Your task to perform on an android device: change keyboard looks Image 0: 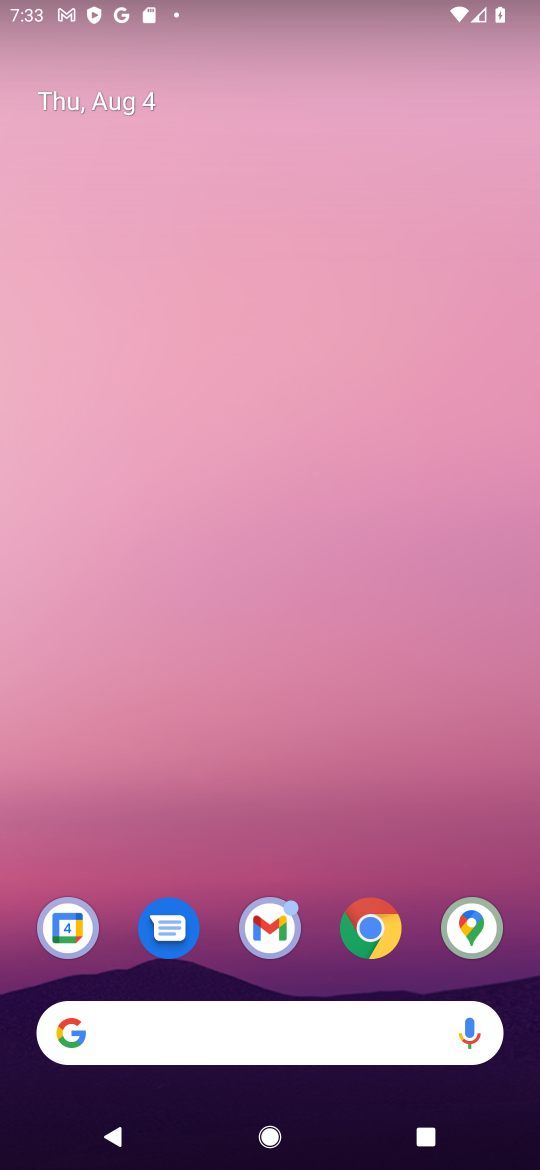
Step 0: drag from (218, 992) to (314, 4)
Your task to perform on an android device: change keyboard looks Image 1: 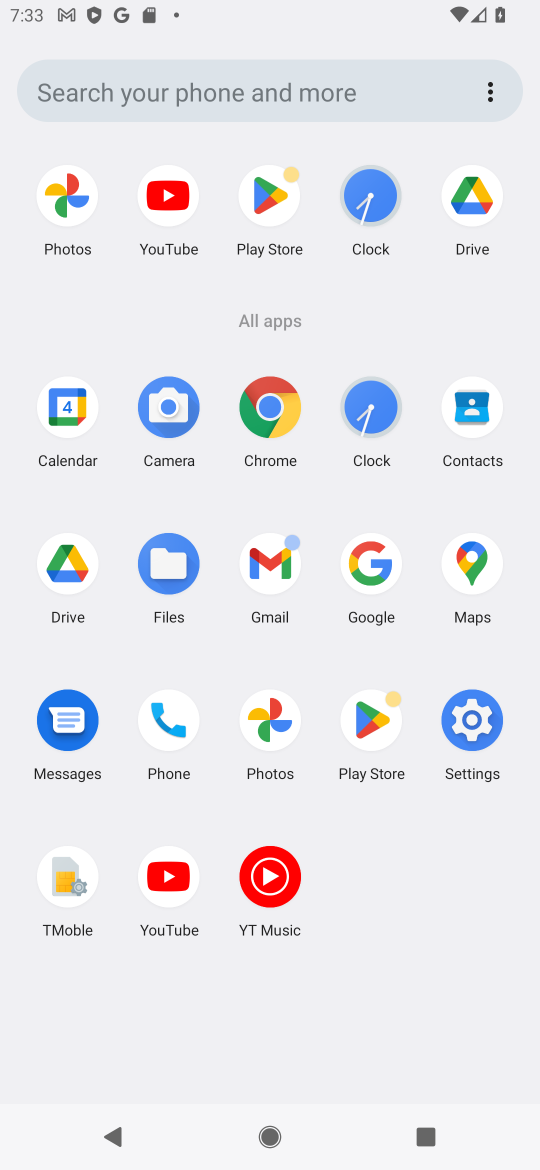
Step 1: click (483, 748)
Your task to perform on an android device: change keyboard looks Image 2: 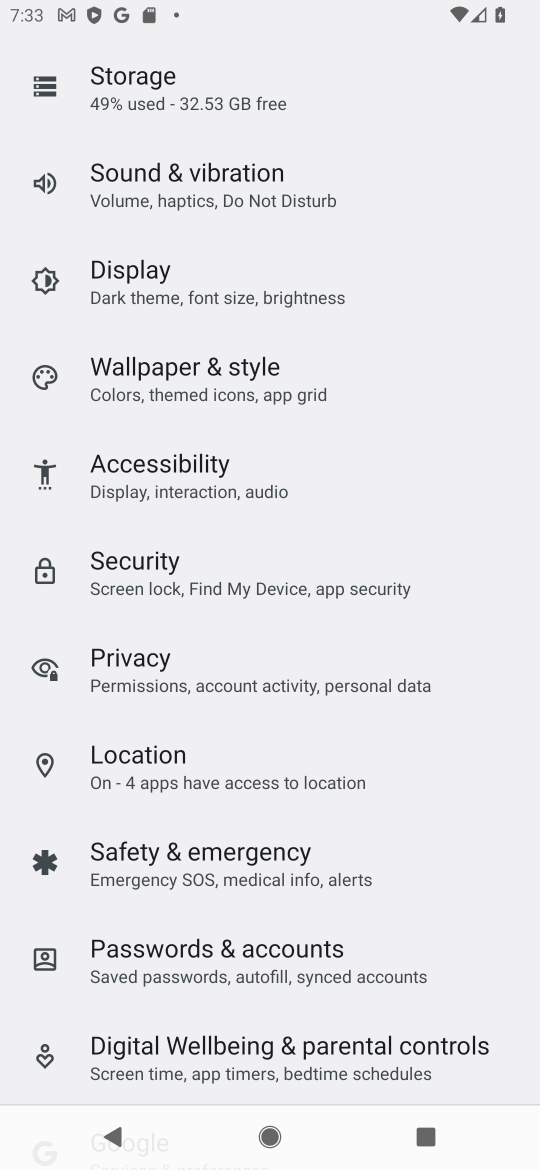
Step 2: drag from (227, 352) to (273, 402)
Your task to perform on an android device: change keyboard looks Image 3: 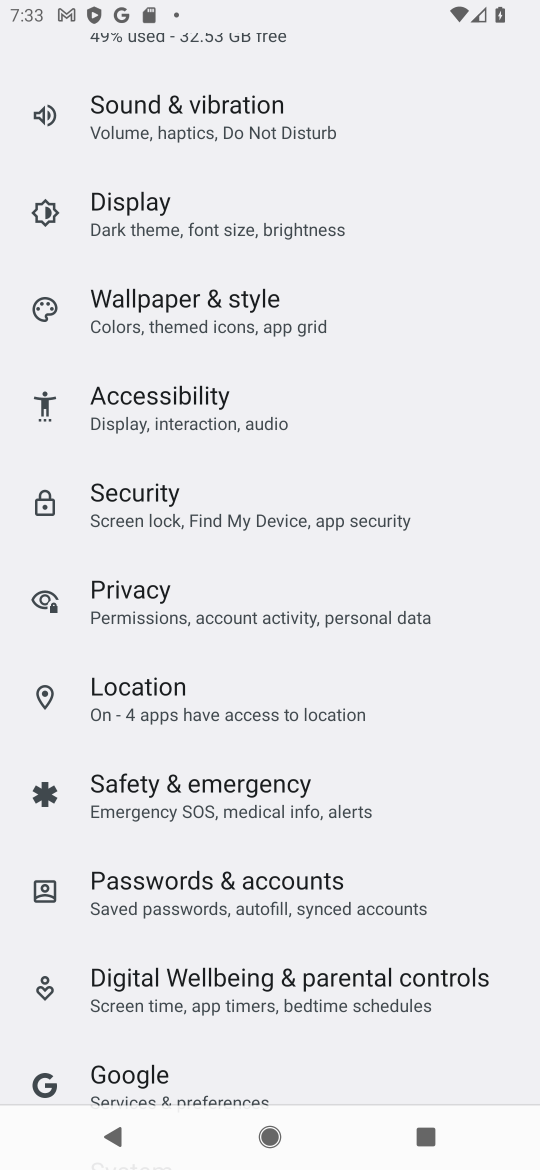
Step 3: drag from (214, 968) to (263, 257)
Your task to perform on an android device: change keyboard looks Image 4: 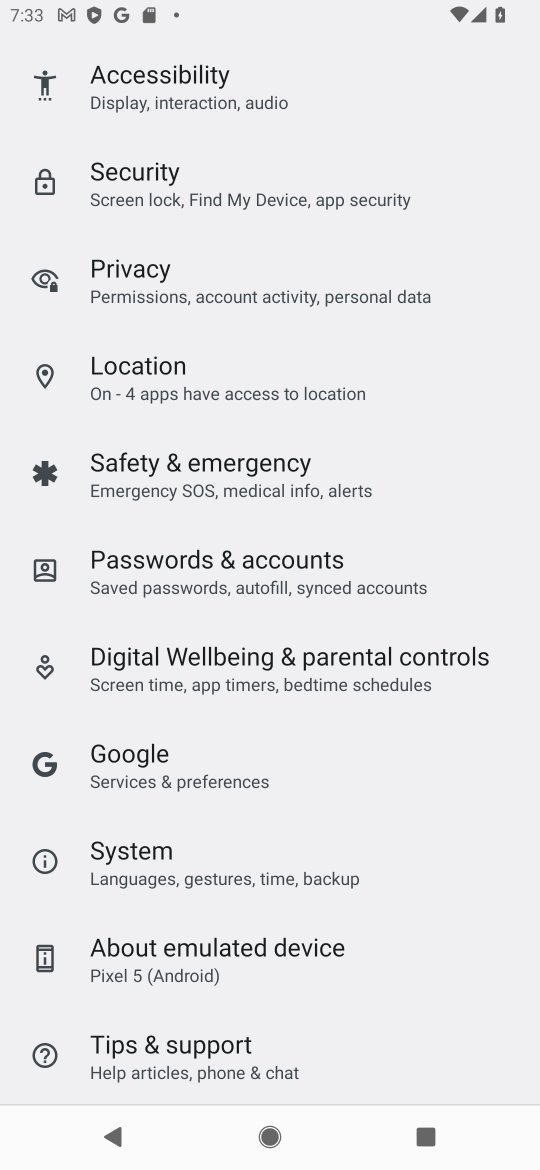
Step 4: click (176, 868)
Your task to perform on an android device: change keyboard looks Image 5: 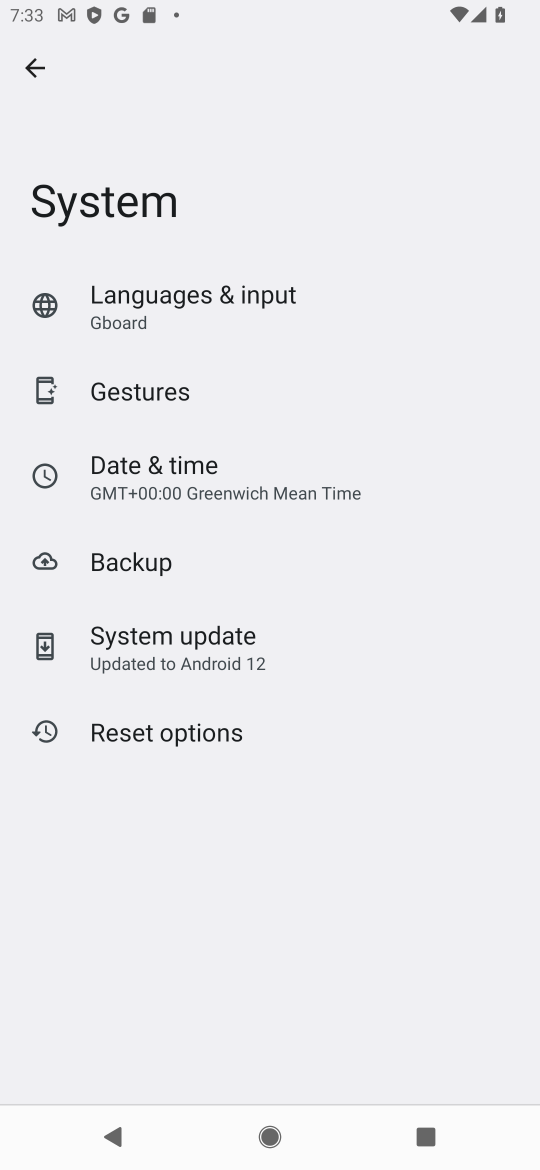
Step 5: click (134, 305)
Your task to perform on an android device: change keyboard looks Image 6: 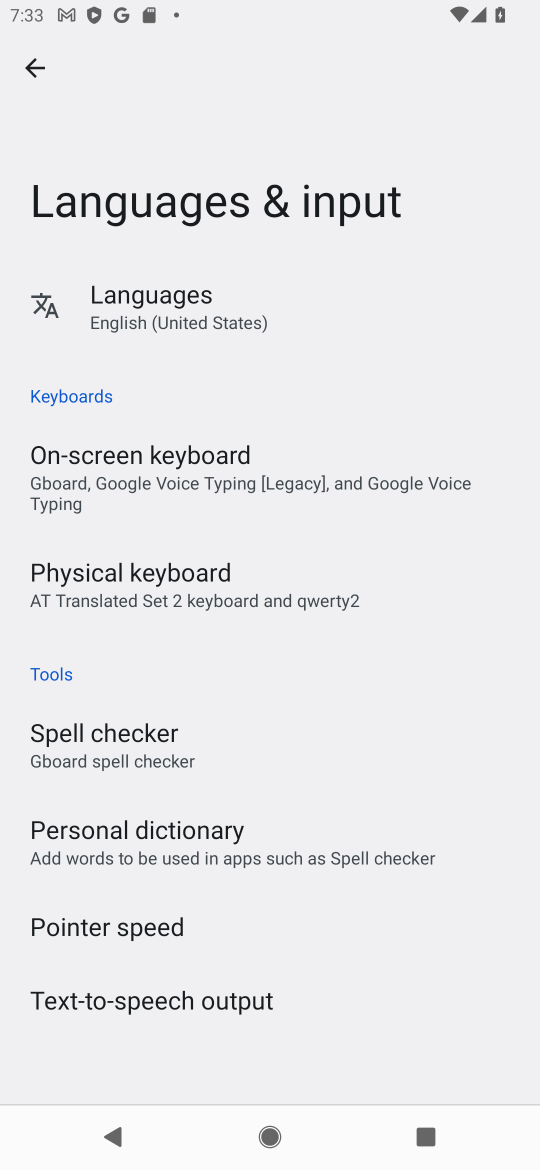
Step 6: click (178, 578)
Your task to perform on an android device: change keyboard looks Image 7: 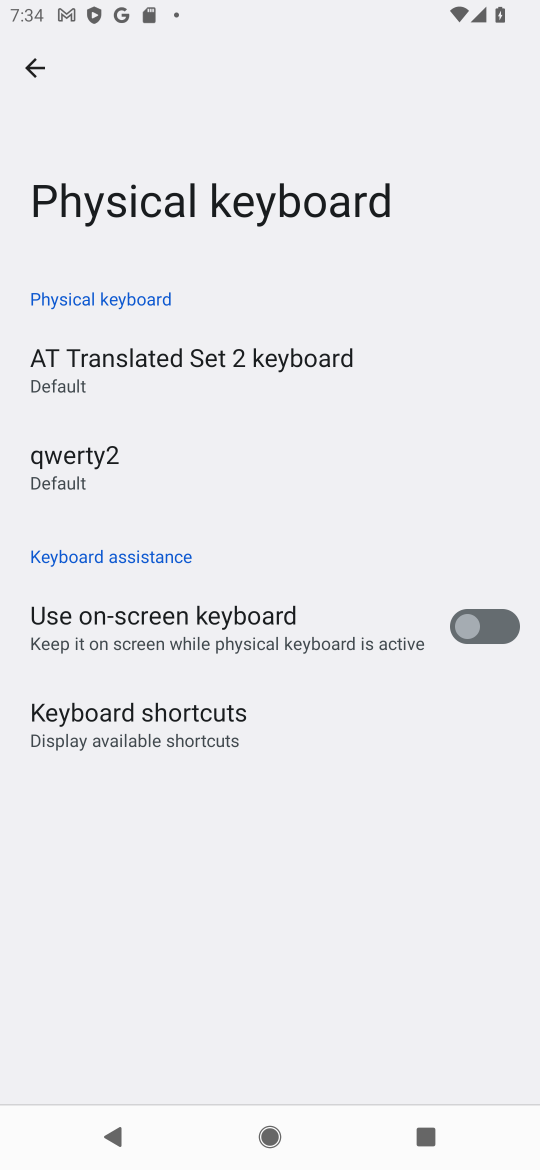
Step 7: click (42, 58)
Your task to perform on an android device: change keyboard looks Image 8: 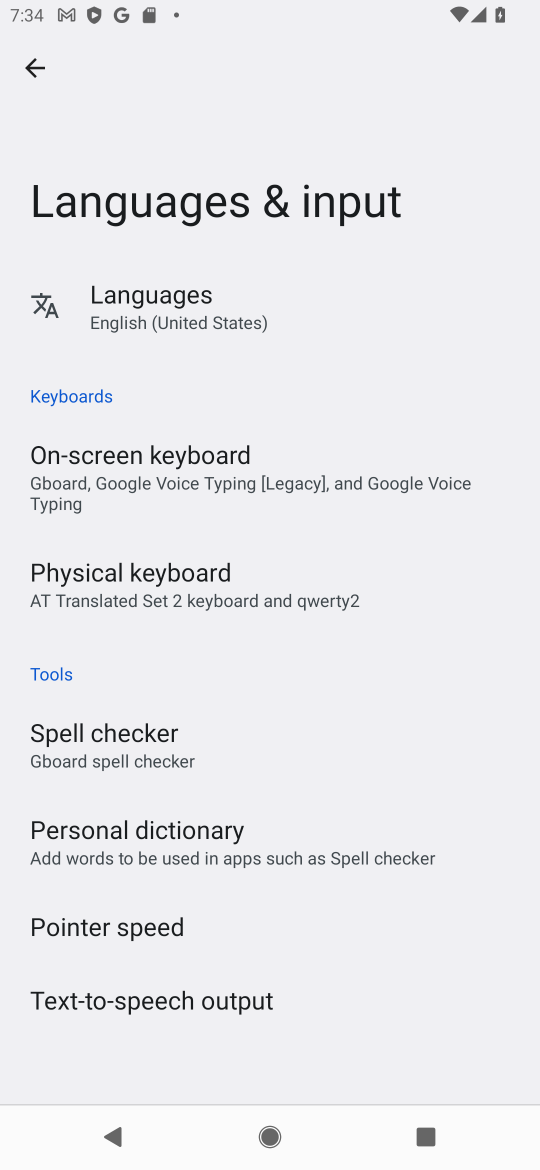
Step 8: drag from (144, 748) to (165, 587)
Your task to perform on an android device: change keyboard looks Image 9: 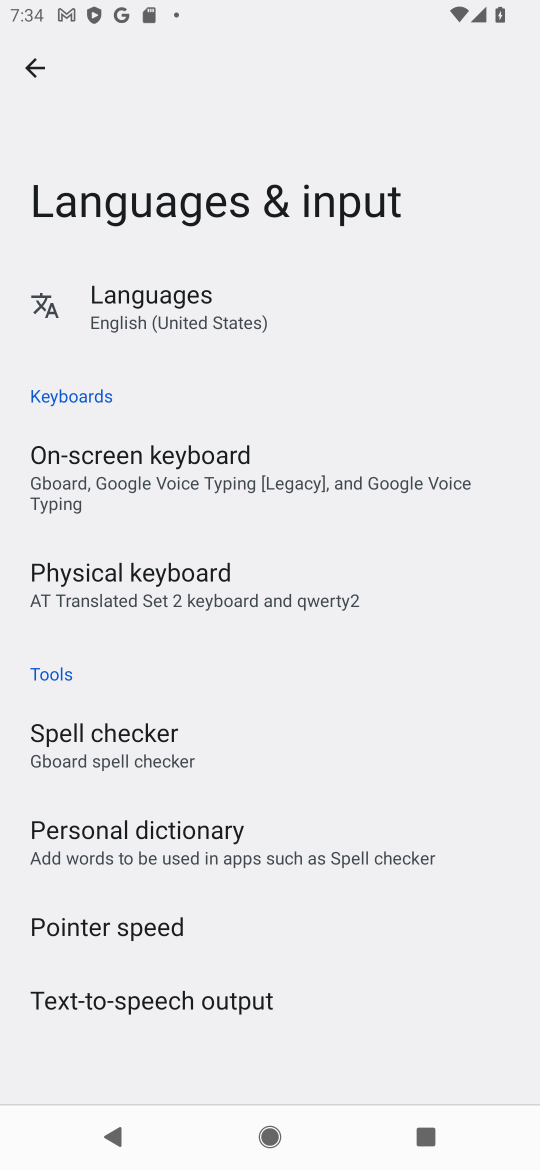
Step 9: click (149, 459)
Your task to perform on an android device: change keyboard looks Image 10: 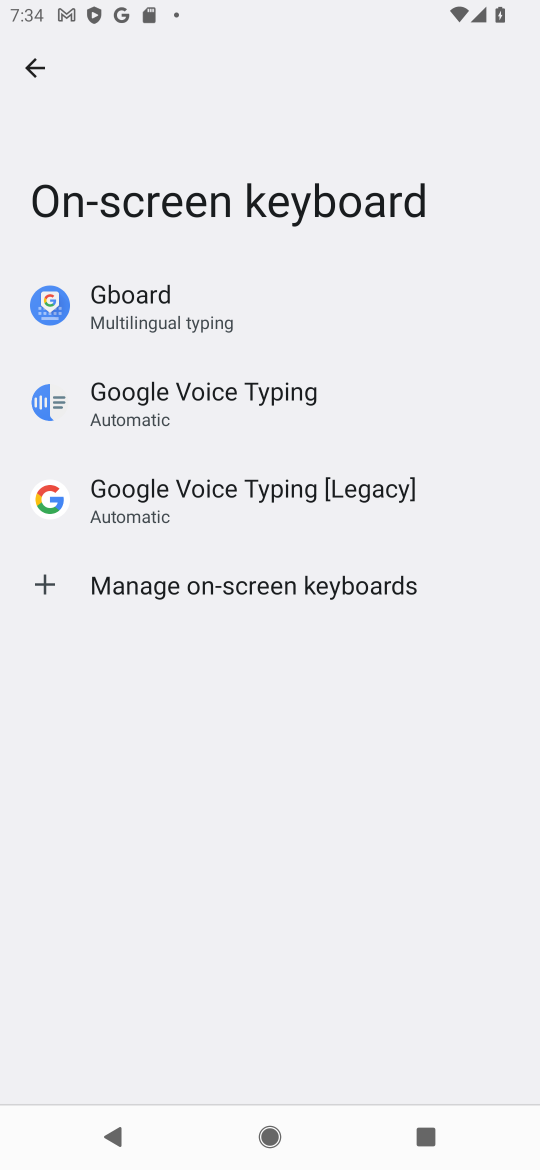
Step 10: click (159, 307)
Your task to perform on an android device: change keyboard looks Image 11: 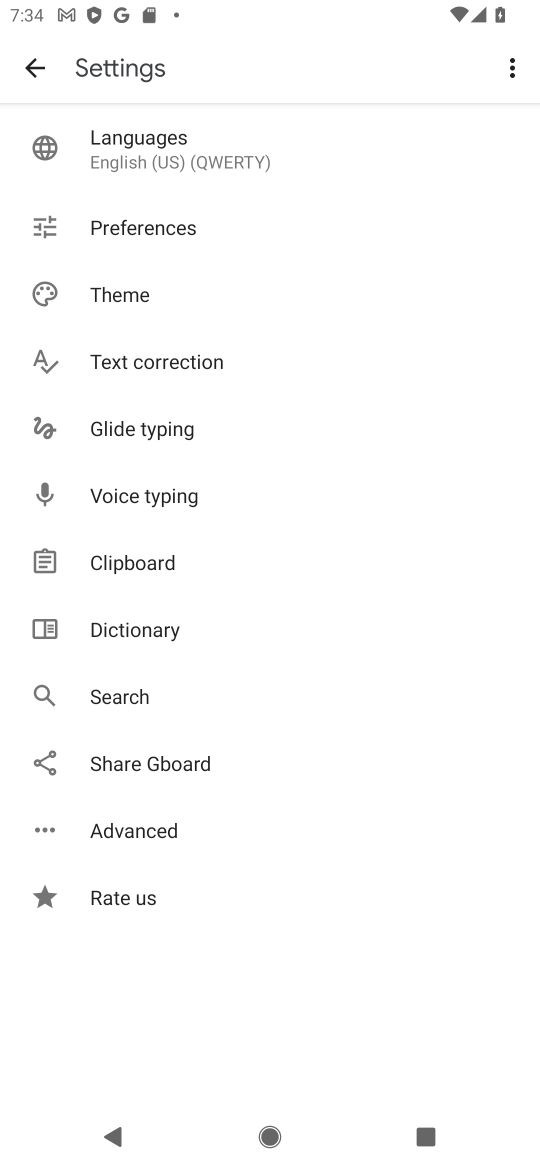
Step 11: click (151, 307)
Your task to perform on an android device: change keyboard looks Image 12: 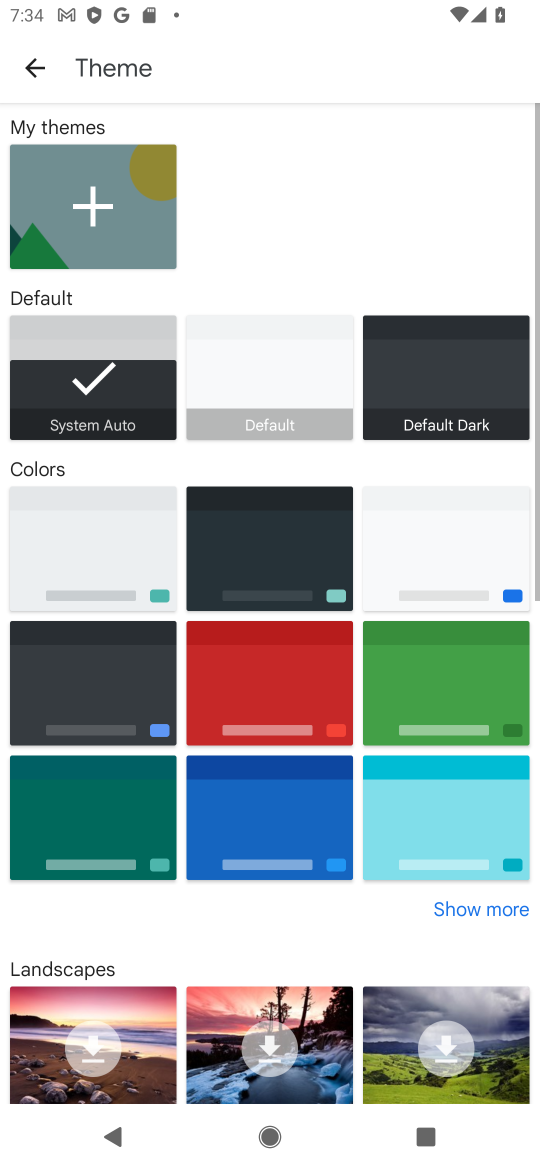
Step 12: click (257, 552)
Your task to perform on an android device: change keyboard looks Image 13: 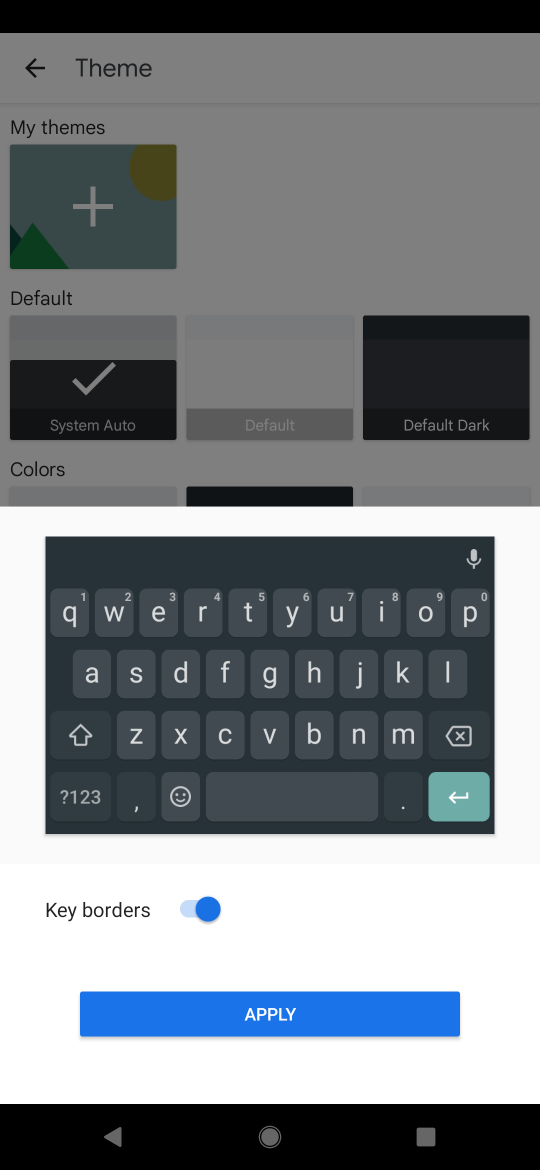
Step 13: click (365, 1015)
Your task to perform on an android device: change keyboard looks Image 14: 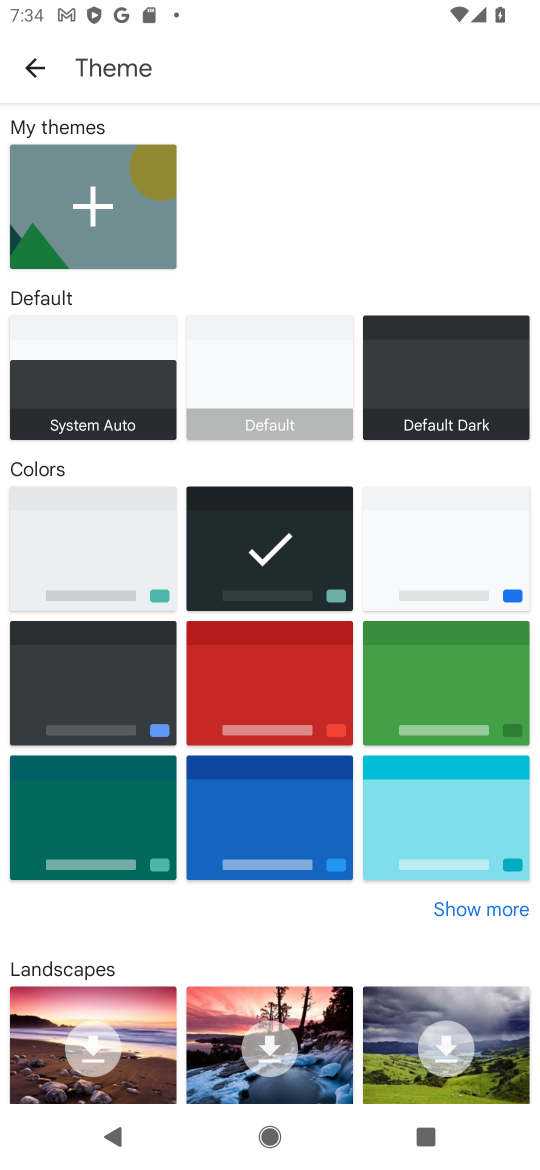
Step 14: task complete